Your task to perform on an android device: choose inbox layout in the gmail app Image 0: 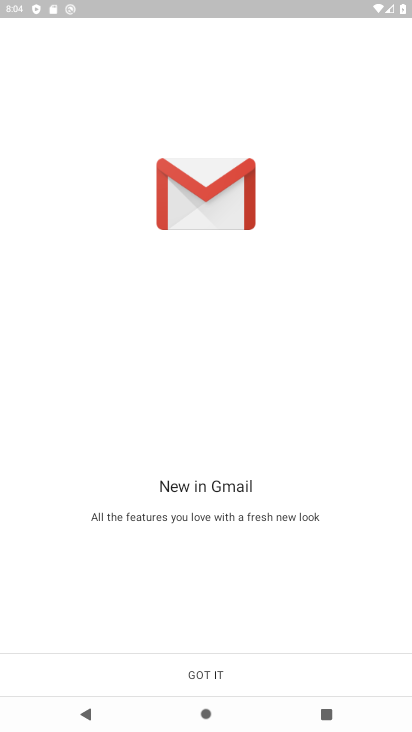
Step 0: click (213, 672)
Your task to perform on an android device: choose inbox layout in the gmail app Image 1: 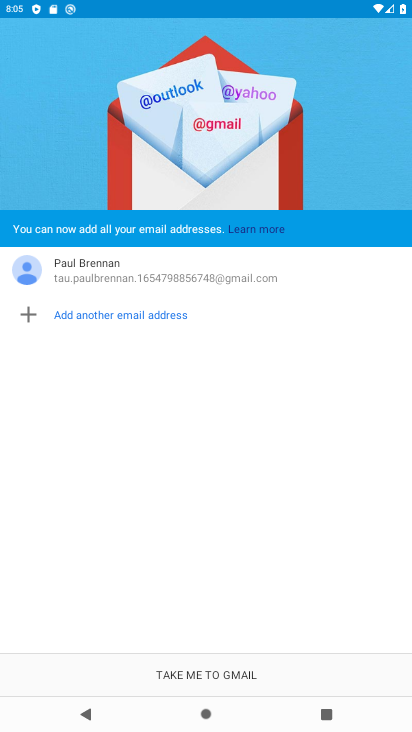
Step 1: click (227, 675)
Your task to perform on an android device: choose inbox layout in the gmail app Image 2: 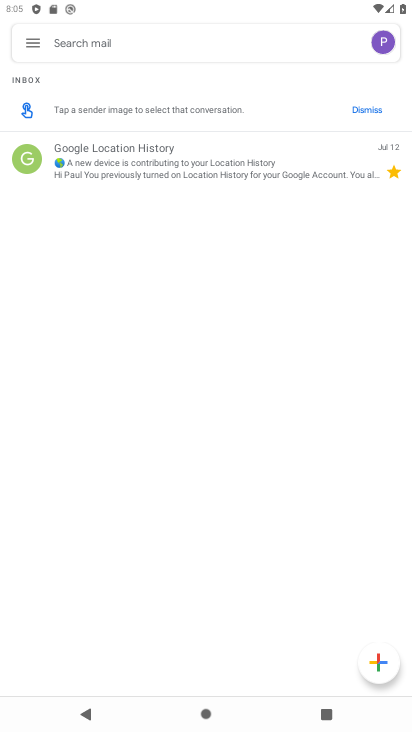
Step 2: click (33, 37)
Your task to perform on an android device: choose inbox layout in the gmail app Image 3: 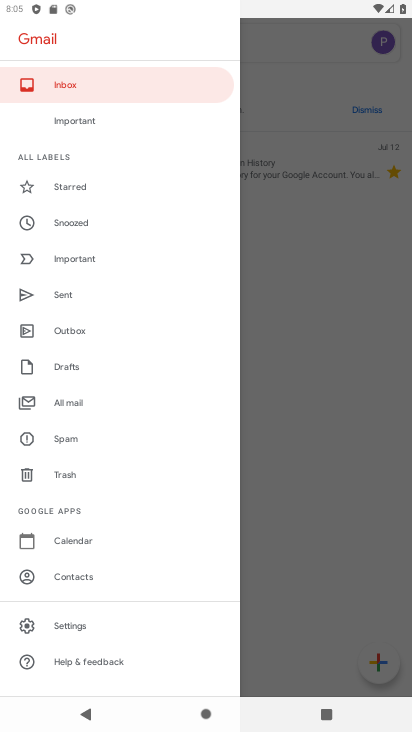
Step 3: click (74, 629)
Your task to perform on an android device: choose inbox layout in the gmail app Image 4: 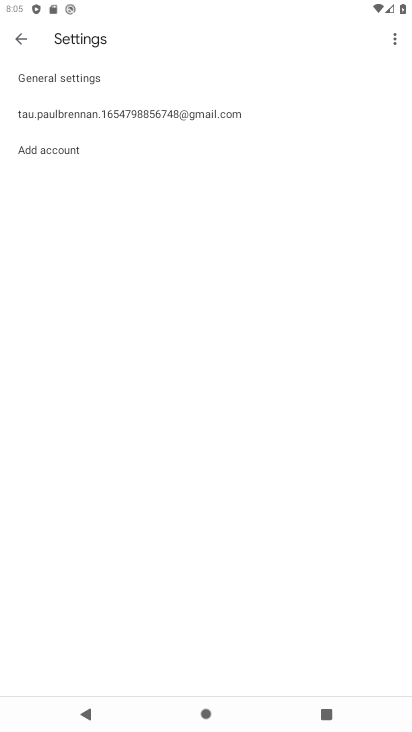
Step 4: click (102, 105)
Your task to perform on an android device: choose inbox layout in the gmail app Image 5: 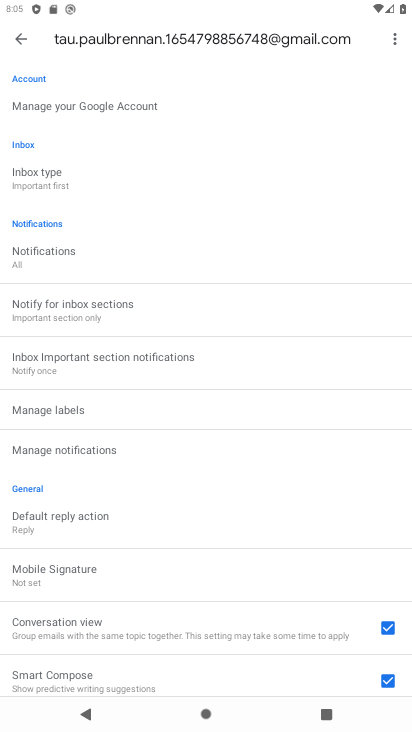
Step 5: click (48, 182)
Your task to perform on an android device: choose inbox layout in the gmail app Image 6: 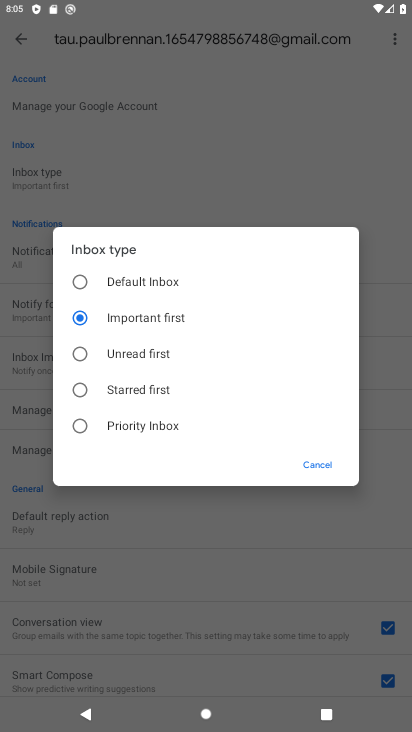
Step 6: click (77, 281)
Your task to perform on an android device: choose inbox layout in the gmail app Image 7: 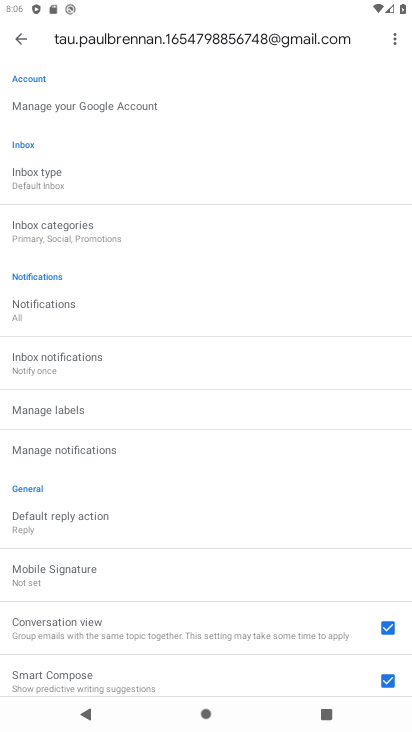
Step 7: task complete